Your task to perform on an android device: Turn off the flashlight Image 0: 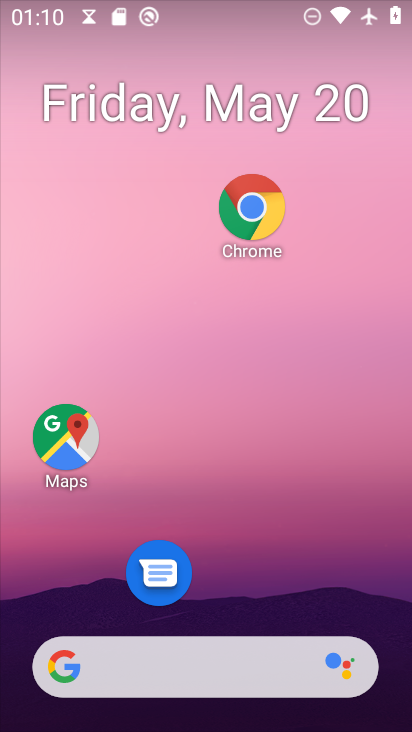
Step 0: drag from (246, 581) to (245, 11)
Your task to perform on an android device: Turn off the flashlight Image 1: 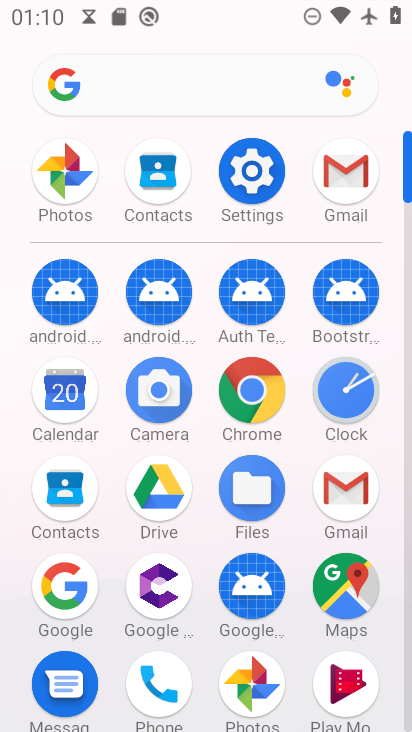
Step 1: click (243, 171)
Your task to perform on an android device: Turn off the flashlight Image 2: 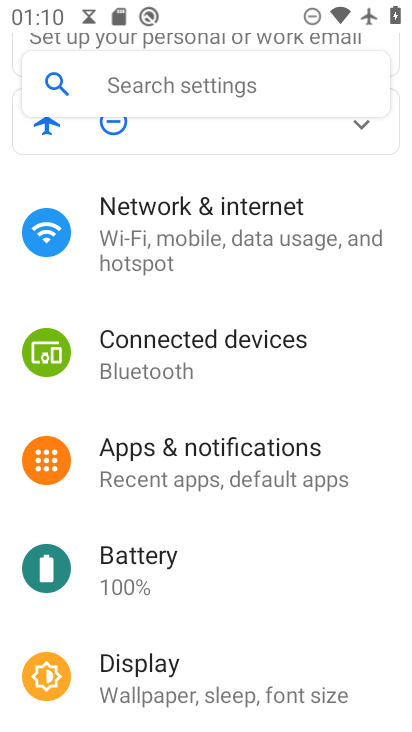
Step 2: task complete